Your task to perform on an android device: turn off wifi Image 0: 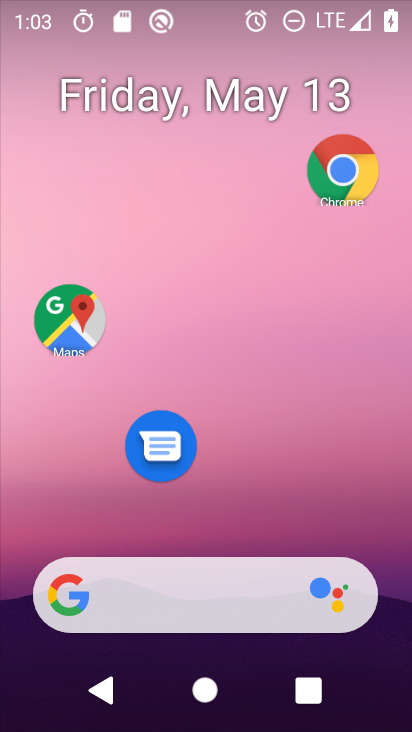
Step 0: drag from (298, 490) to (356, 5)
Your task to perform on an android device: turn off wifi Image 1: 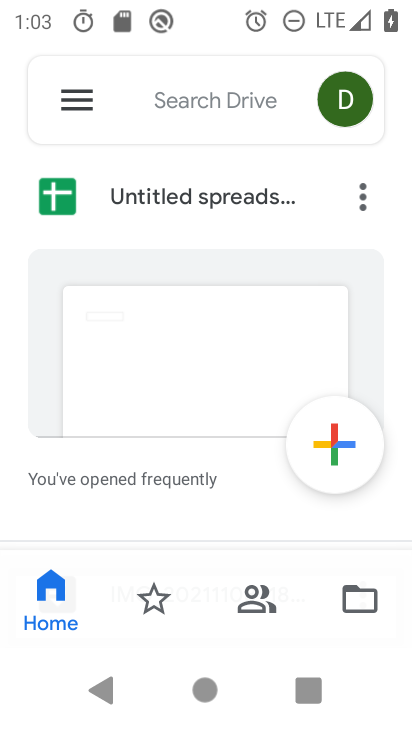
Step 1: press home button
Your task to perform on an android device: turn off wifi Image 2: 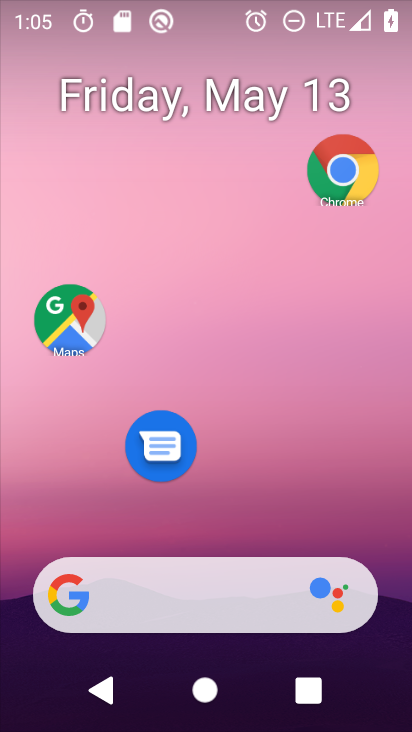
Step 2: drag from (307, 523) to (352, 4)
Your task to perform on an android device: turn off wifi Image 3: 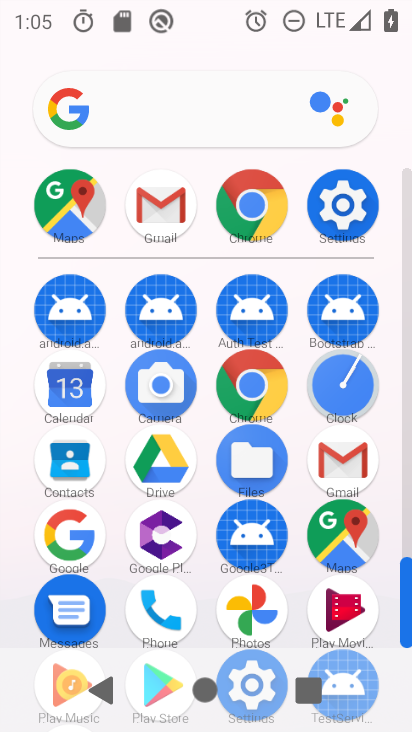
Step 3: click (357, 190)
Your task to perform on an android device: turn off wifi Image 4: 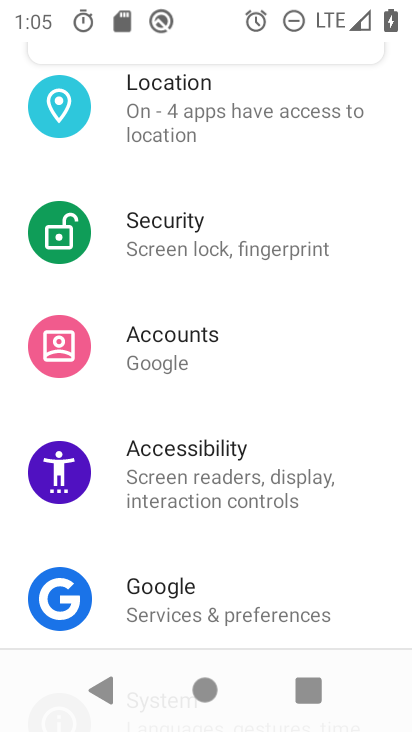
Step 4: drag from (233, 219) to (252, 726)
Your task to perform on an android device: turn off wifi Image 5: 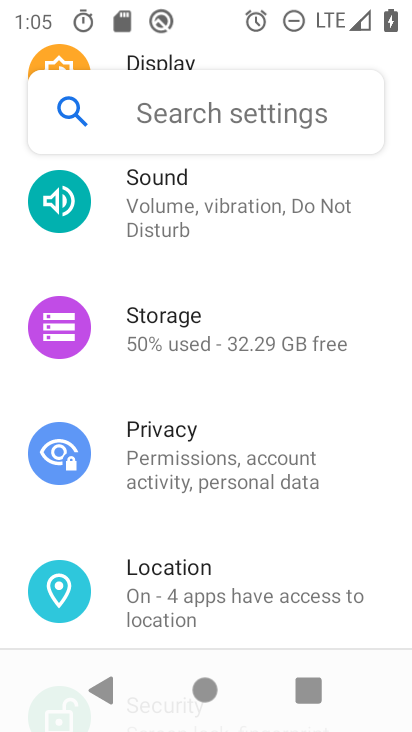
Step 5: drag from (257, 239) to (289, 693)
Your task to perform on an android device: turn off wifi Image 6: 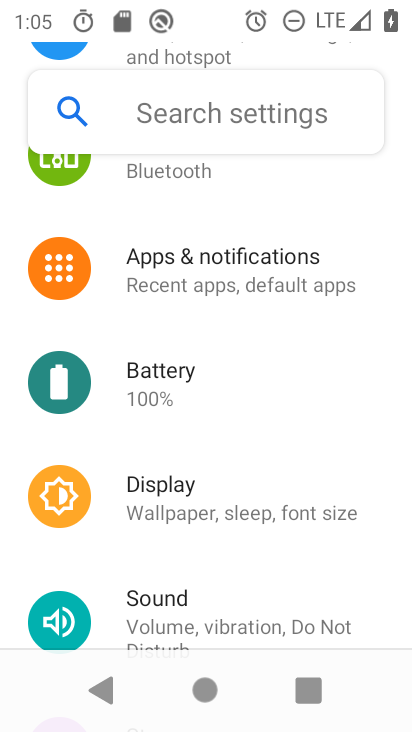
Step 6: drag from (285, 222) to (294, 725)
Your task to perform on an android device: turn off wifi Image 7: 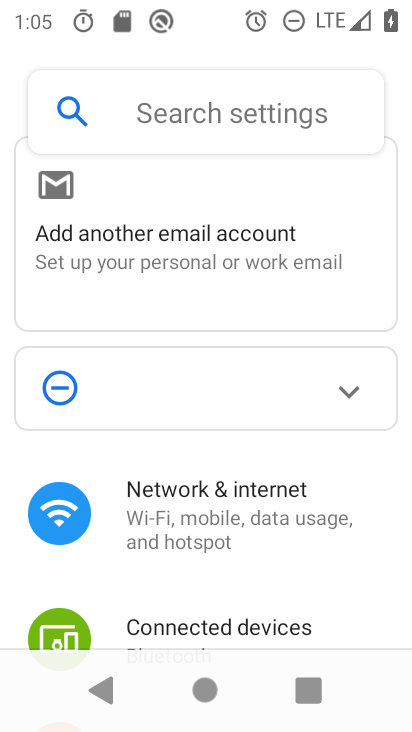
Step 7: click (206, 520)
Your task to perform on an android device: turn off wifi Image 8: 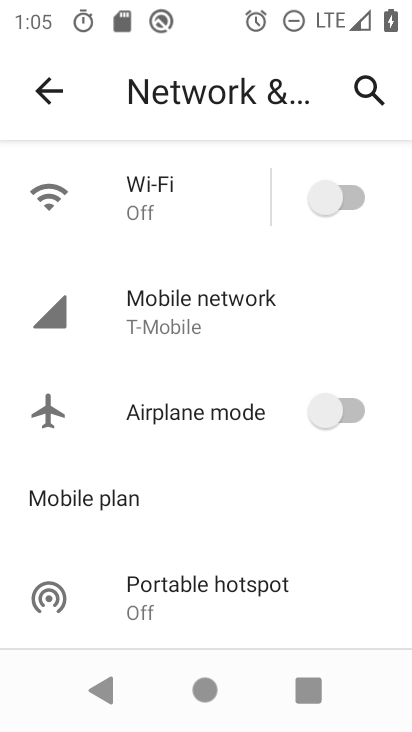
Step 8: task complete